Your task to perform on an android device: toggle priority inbox in the gmail app Image 0: 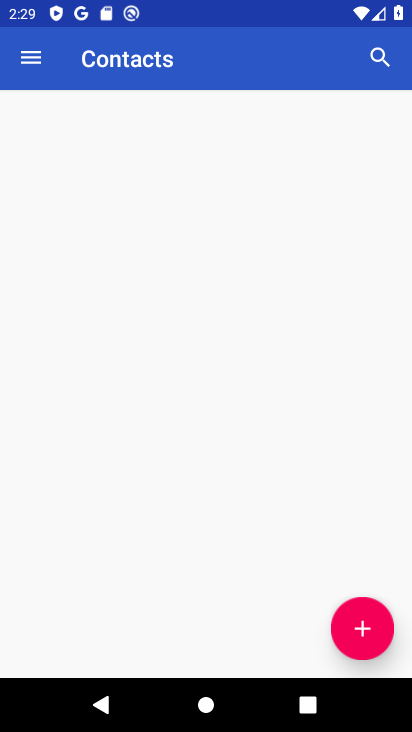
Step 0: press home button
Your task to perform on an android device: toggle priority inbox in the gmail app Image 1: 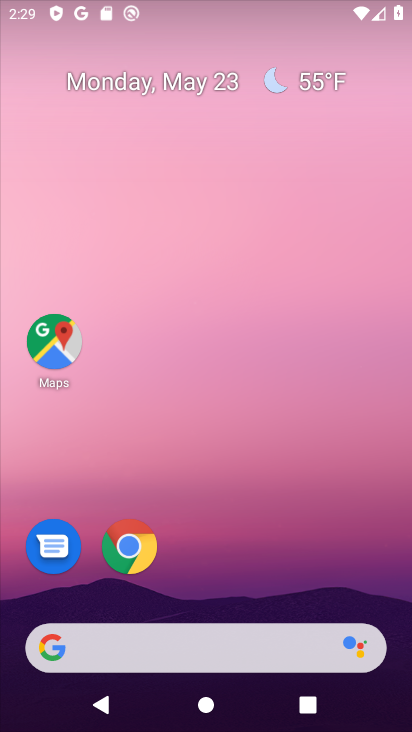
Step 1: drag from (392, 587) to (343, 171)
Your task to perform on an android device: toggle priority inbox in the gmail app Image 2: 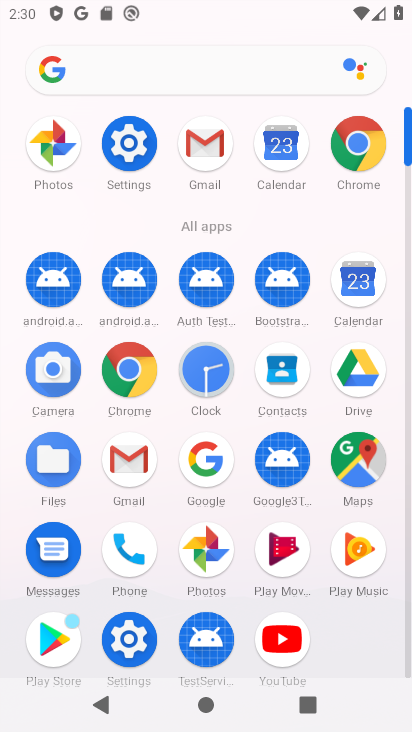
Step 2: click (136, 458)
Your task to perform on an android device: toggle priority inbox in the gmail app Image 3: 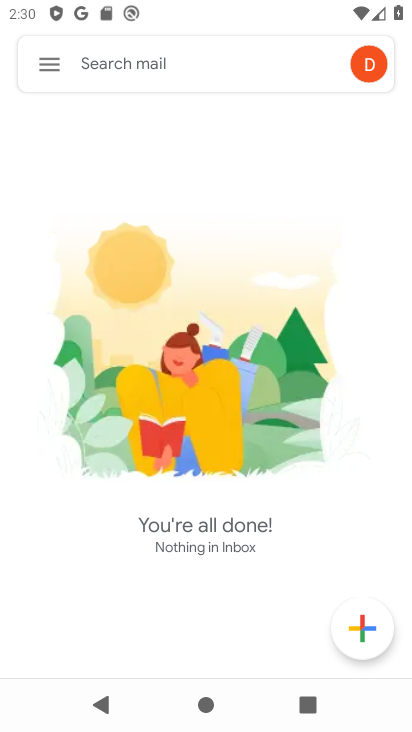
Step 3: click (62, 64)
Your task to perform on an android device: toggle priority inbox in the gmail app Image 4: 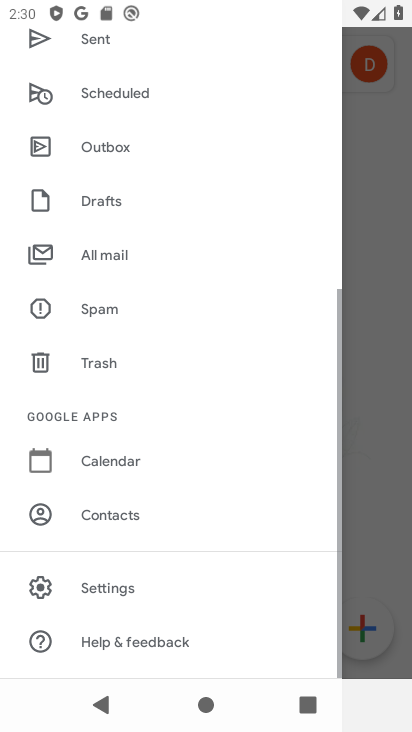
Step 4: click (117, 585)
Your task to perform on an android device: toggle priority inbox in the gmail app Image 5: 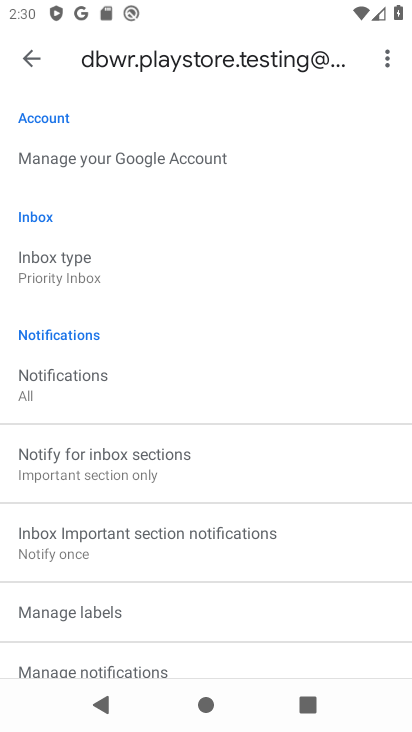
Step 5: click (108, 260)
Your task to perform on an android device: toggle priority inbox in the gmail app Image 6: 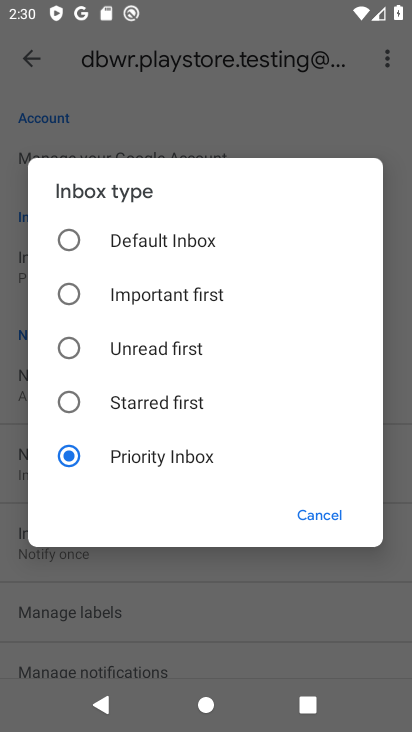
Step 6: click (68, 234)
Your task to perform on an android device: toggle priority inbox in the gmail app Image 7: 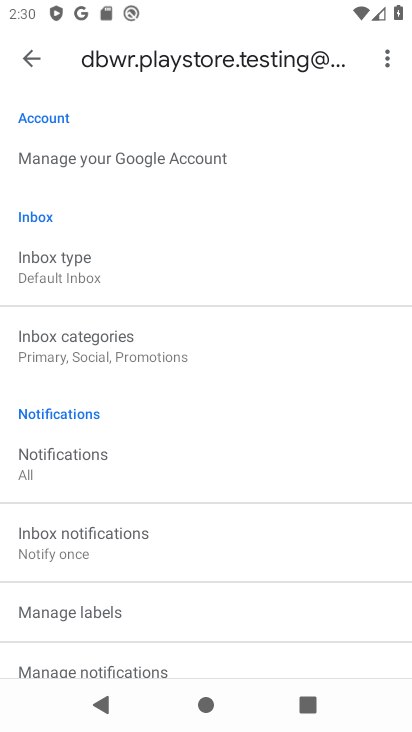
Step 7: task complete